Your task to perform on an android device: Turn off the flashlight Image 0: 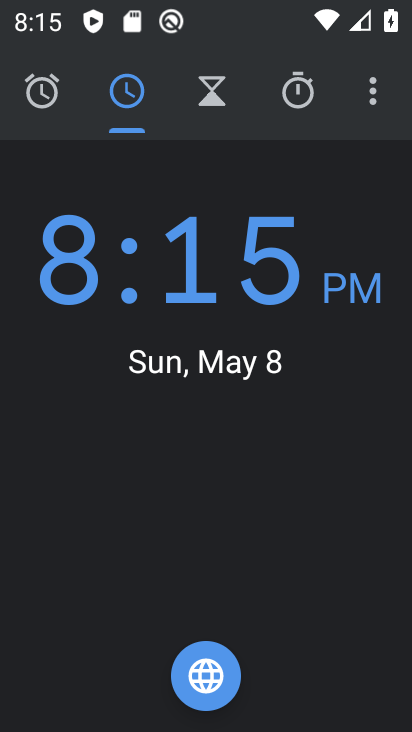
Step 0: press home button
Your task to perform on an android device: Turn off the flashlight Image 1: 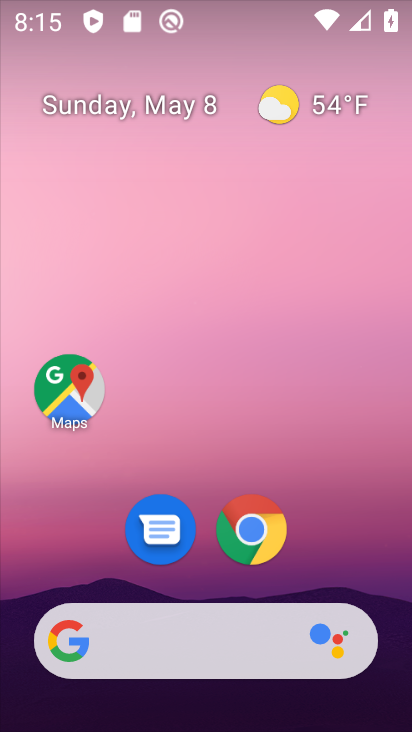
Step 1: drag from (371, 556) to (345, 97)
Your task to perform on an android device: Turn off the flashlight Image 2: 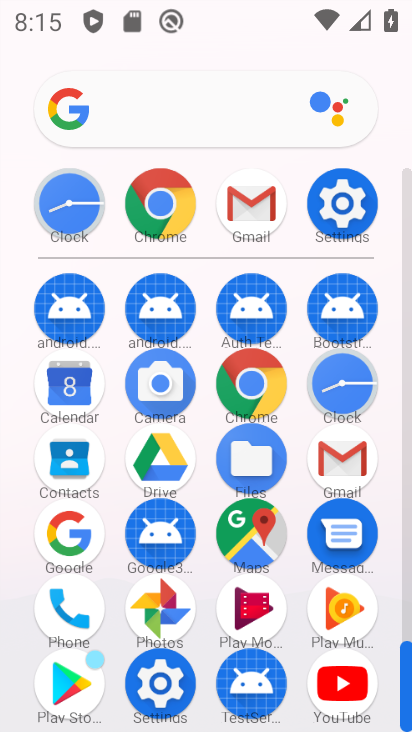
Step 2: click (157, 692)
Your task to perform on an android device: Turn off the flashlight Image 3: 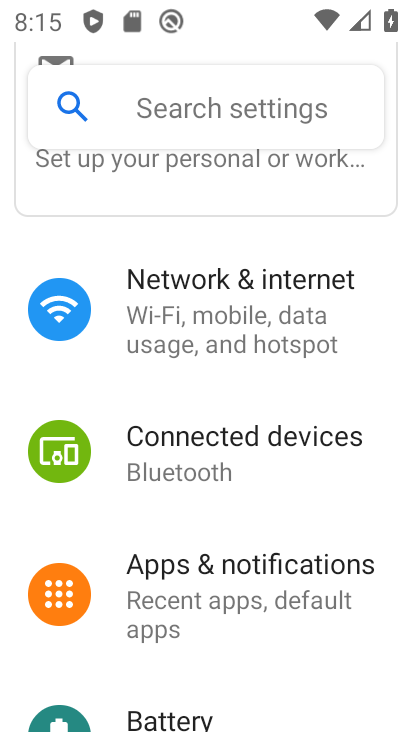
Step 3: click (236, 99)
Your task to perform on an android device: Turn off the flashlight Image 4: 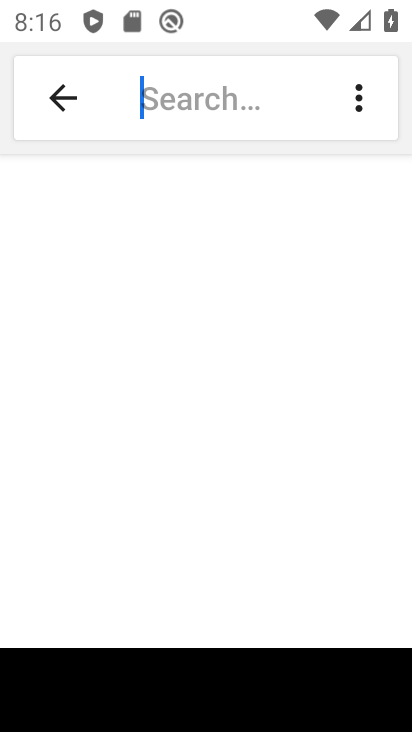
Step 4: type "flashlight"
Your task to perform on an android device: Turn off the flashlight Image 5: 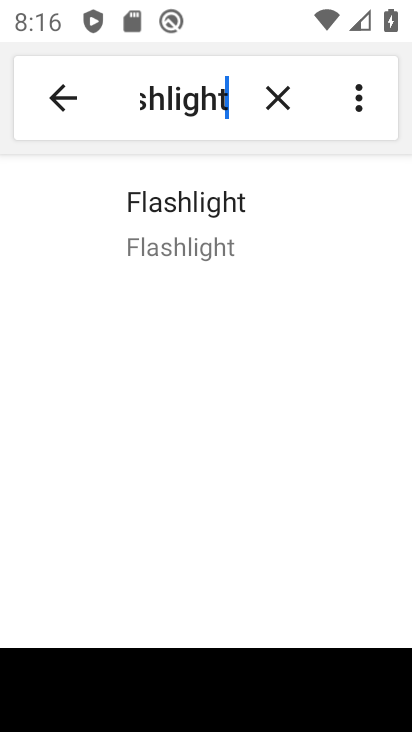
Step 5: click (230, 223)
Your task to perform on an android device: Turn off the flashlight Image 6: 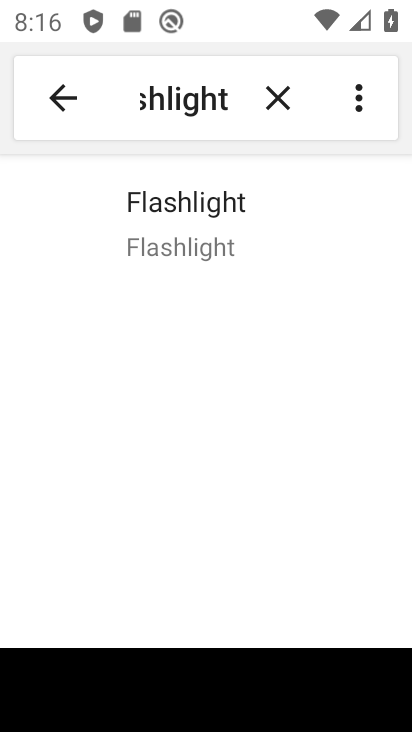
Step 6: click (199, 231)
Your task to perform on an android device: Turn off the flashlight Image 7: 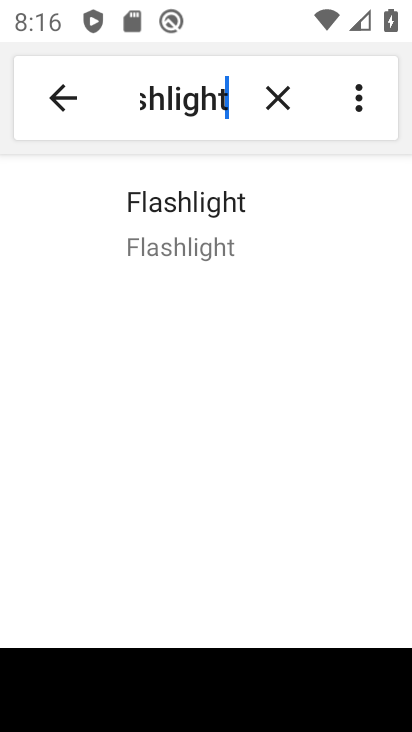
Step 7: click (212, 226)
Your task to perform on an android device: Turn off the flashlight Image 8: 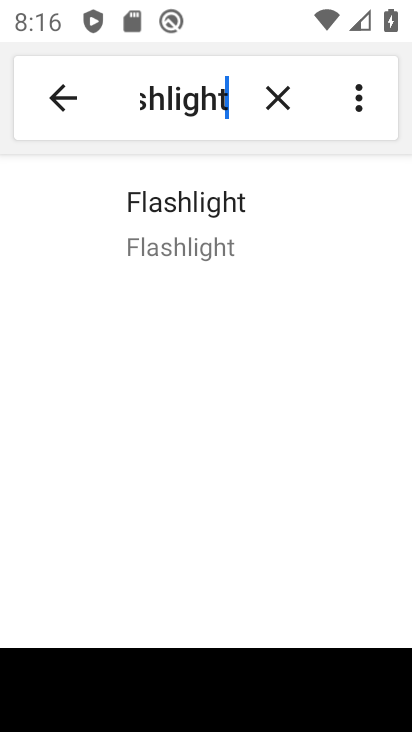
Step 8: click (213, 226)
Your task to perform on an android device: Turn off the flashlight Image 9: 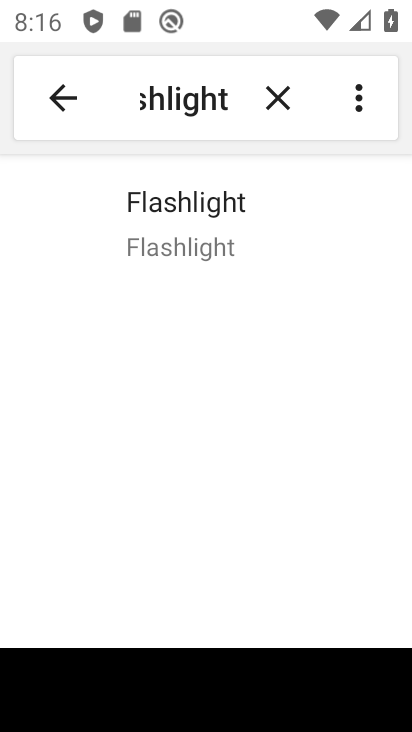
Step 9: task complete